Your task to perform on an android device: Search for bose soundsport free on newegg.com, select the first entry, add it to the cart, then select checkout. Image 0: 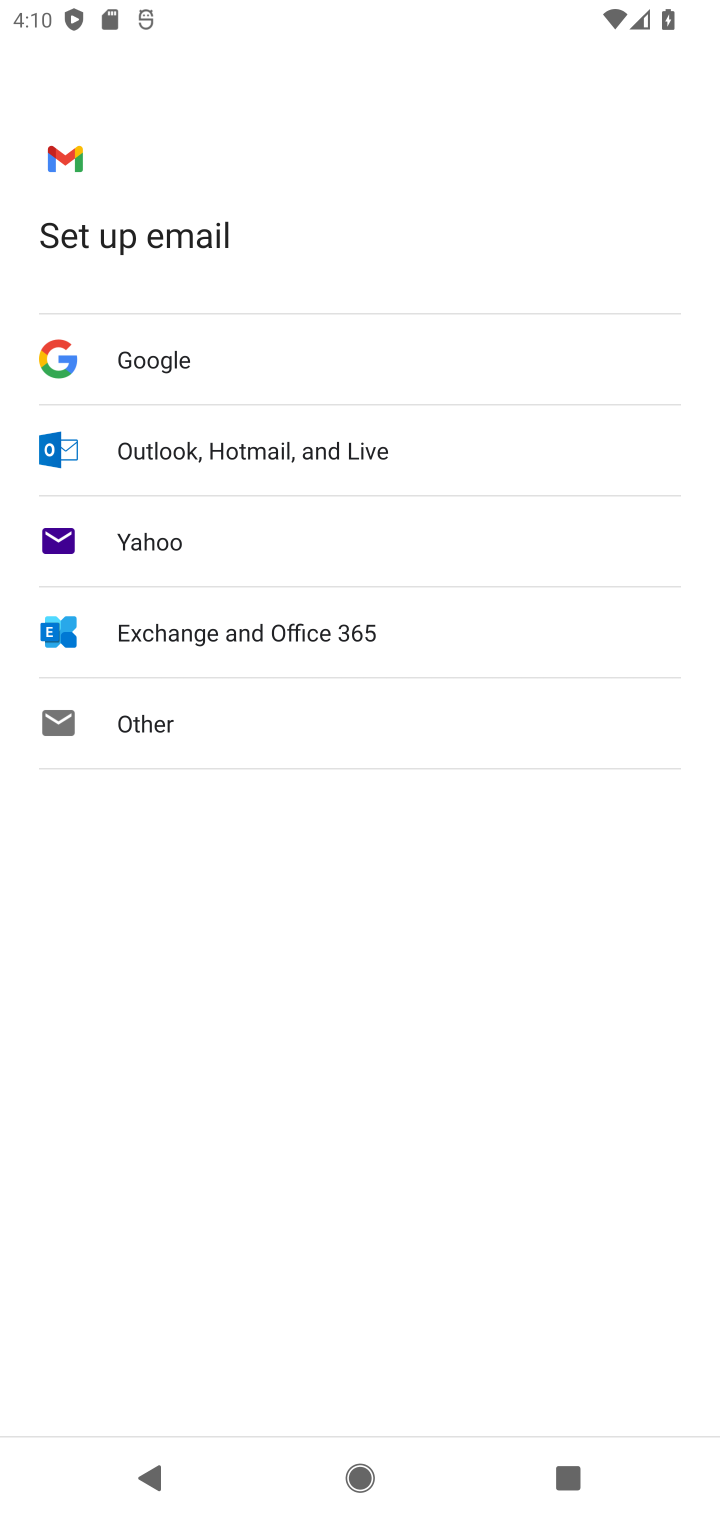
Step 0: press home button
Your task to perform on an android device: Search for bose soundsport free on newegg.com, select the first entry, add it to the cart, then select checkout. Image 1: 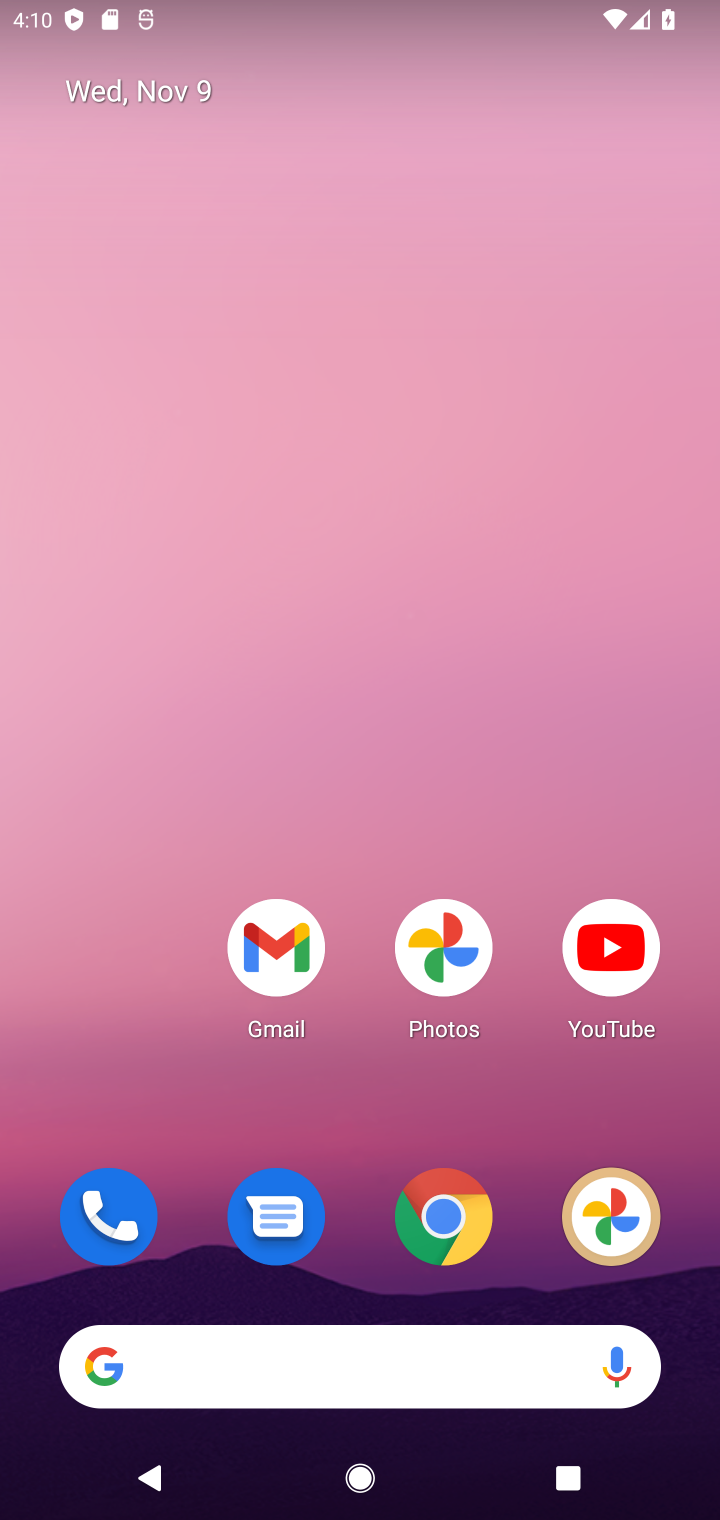
Step 1: drag from (363, 1105) to (511, 291)
Your task to perform on an android device: Search for bose soundsport free on newegg.com, select the first entry, add it to the cart, then select checkout. Image 2: 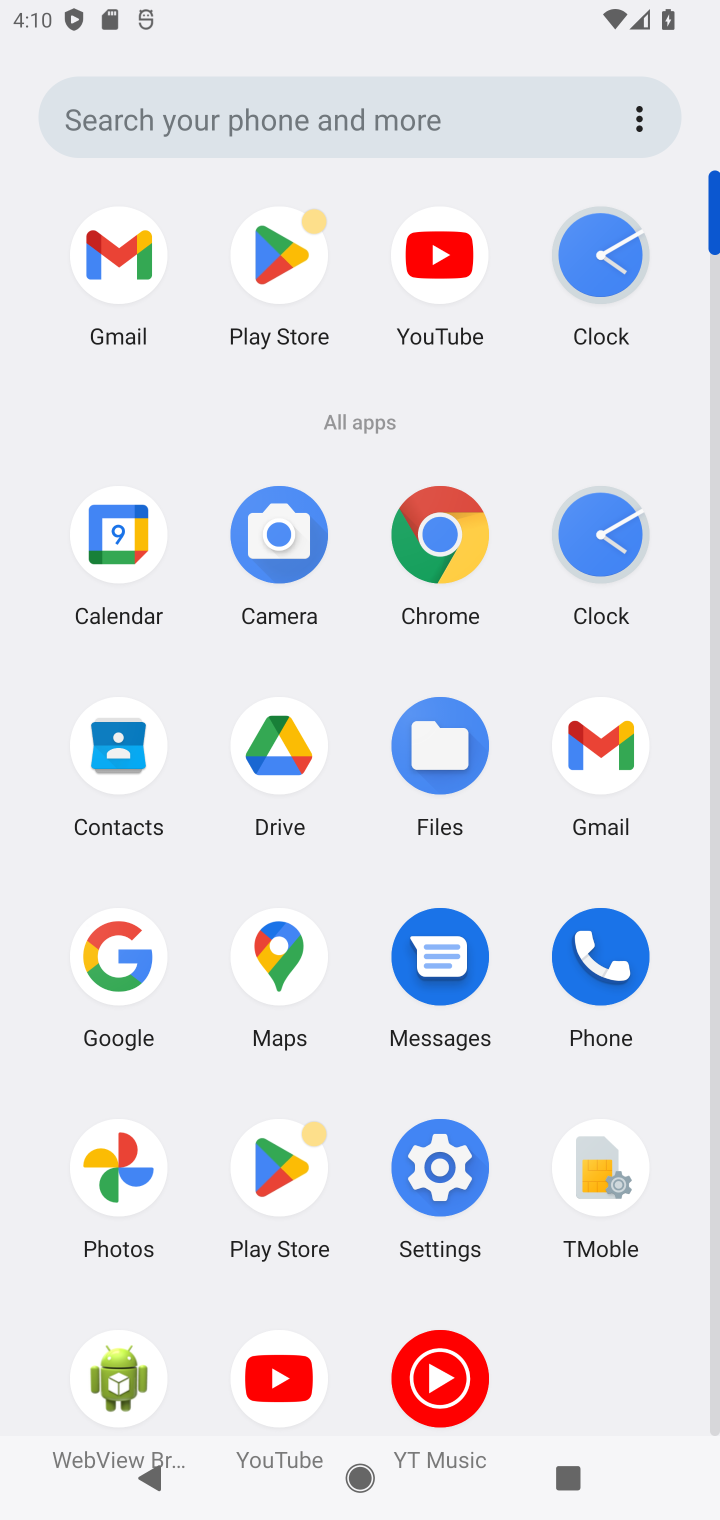
Step 2: click (442, 534)
Your task to perform on an android device: Search for bose soundsport free on newegg.com, select the first entry, add it to the cart, then select checkout. Image 3: 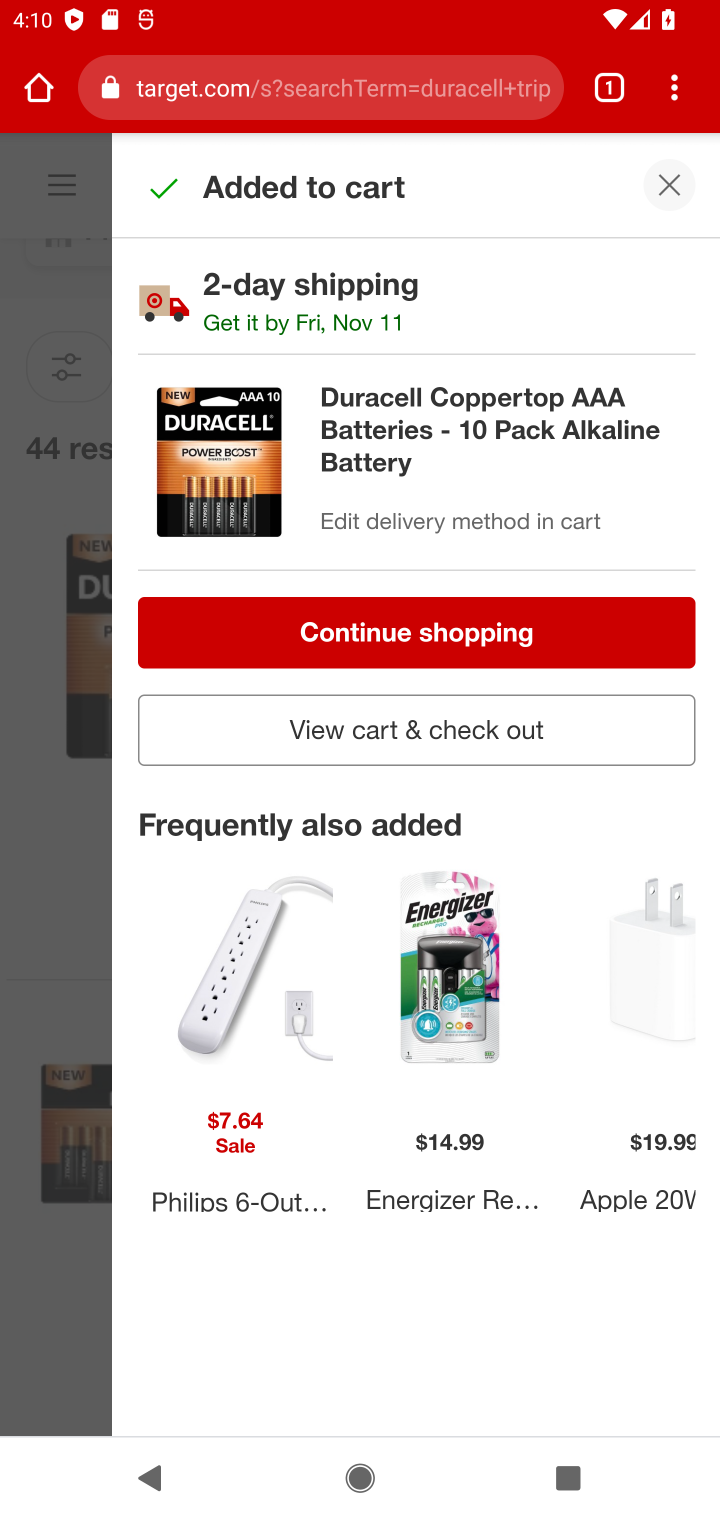
Step 3: click (506, 91)
Your task to perform on an android device: Search for bose soundsport free on newegg.com, select the first entry, add it to the cart, then select checkout. Image 4: 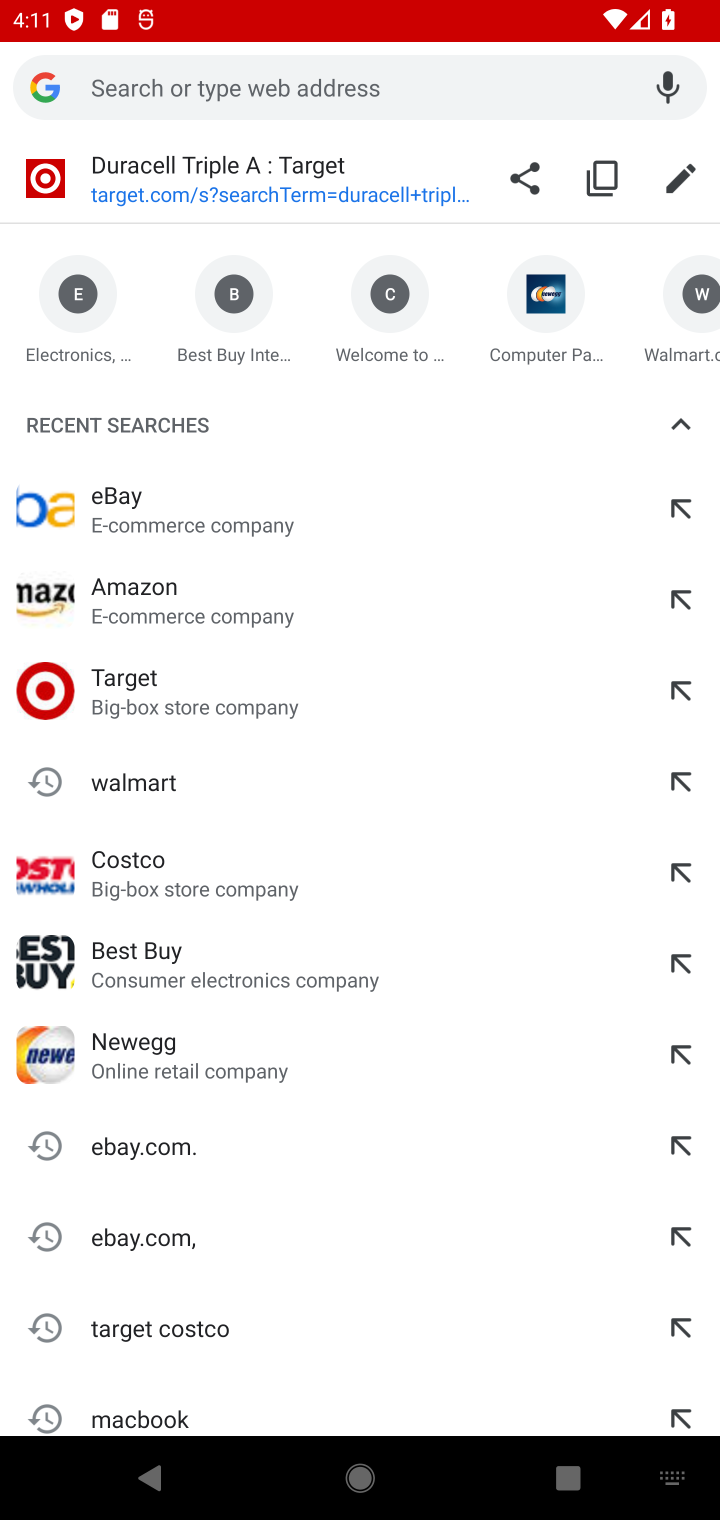
Step 4: type "newegg.com"
Your task to perform on an android device: Search for bose soundsport free on newegg.com, select the first entry, add it to the cart, then select checkout. Image 5: 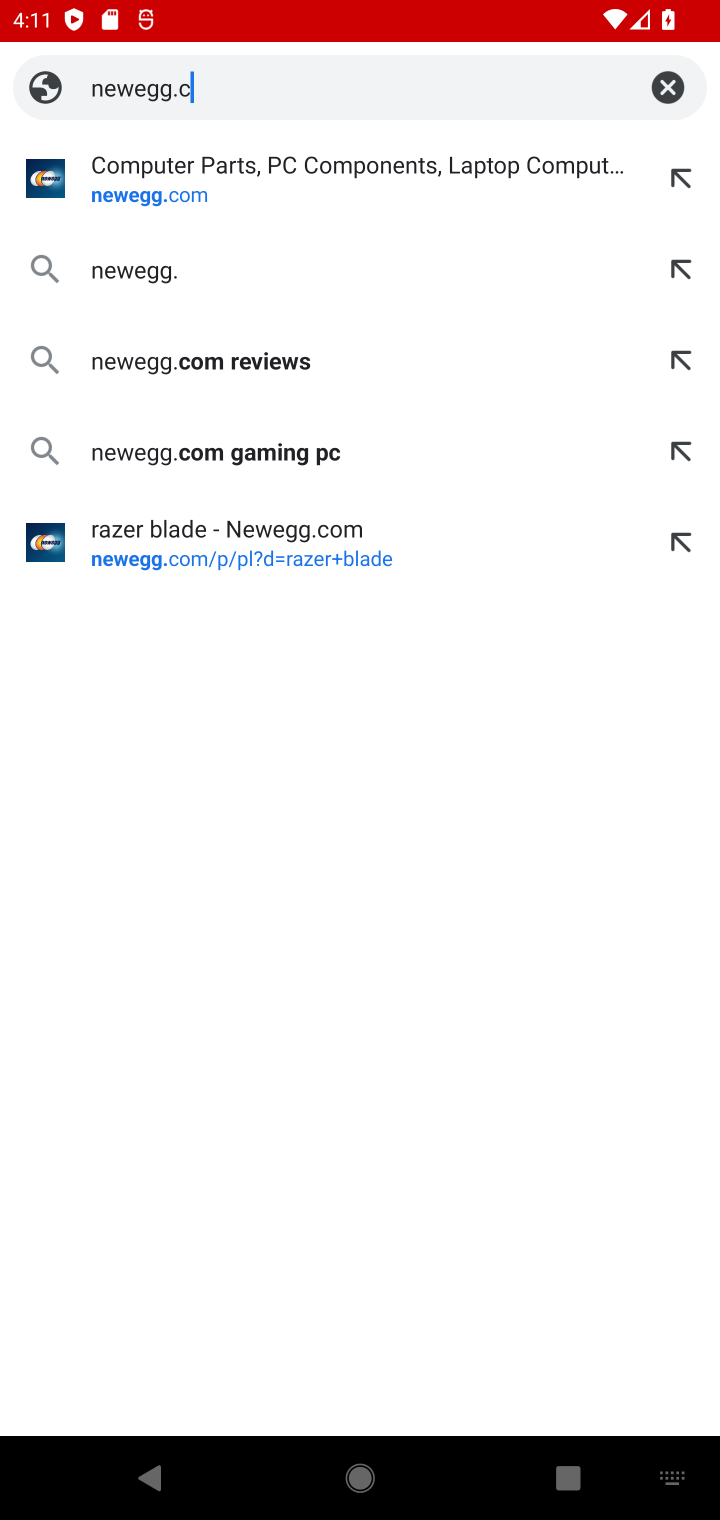
Step 5: press enter
Your task to perform on an android device: Search for bose soundsport free on newegg.com, select the first entry, add it to the cart, then select checkout. Image 6: 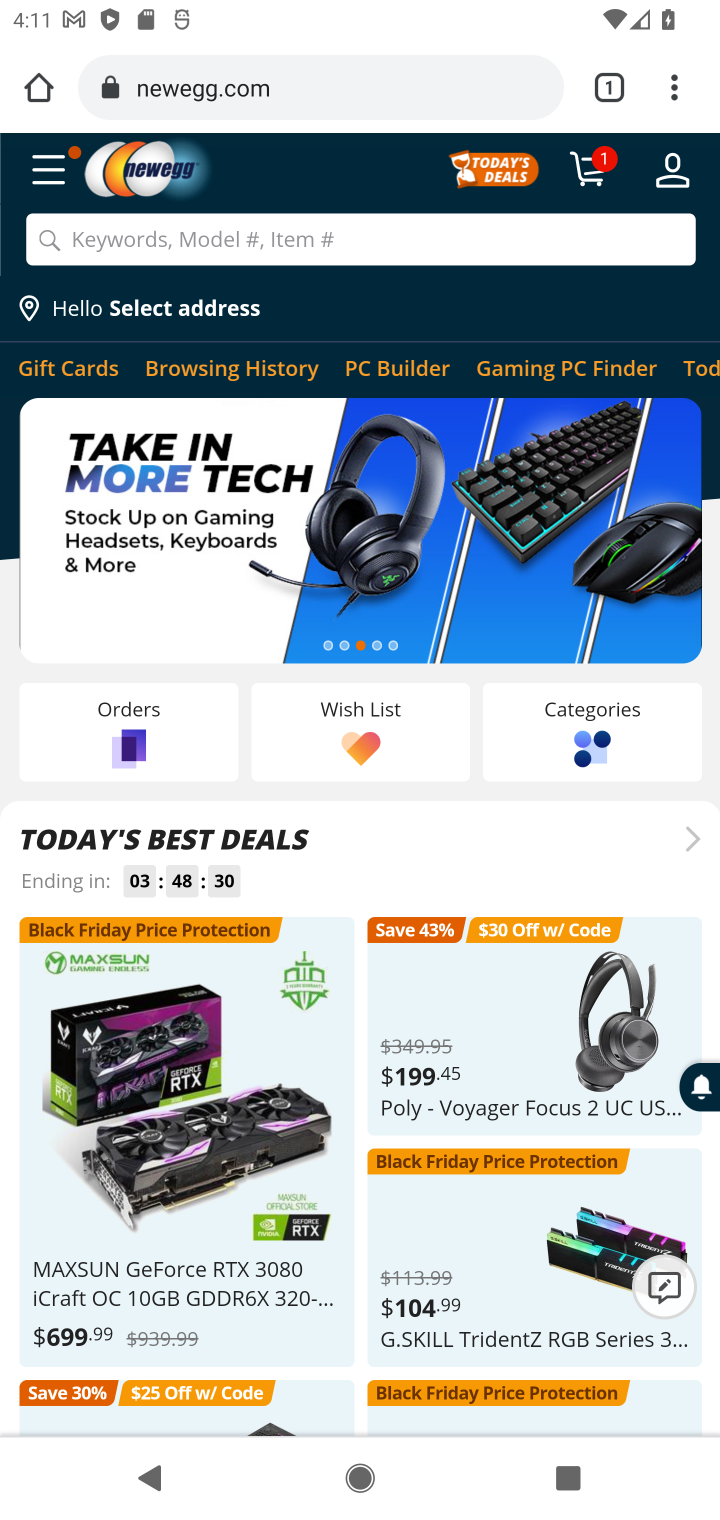
Step 6: click (490, 234)
Your task to perform on an android device: Search for bose soundsport free on newegg.com, select the first entry, add it to the cart, then select checkout. Image 7: 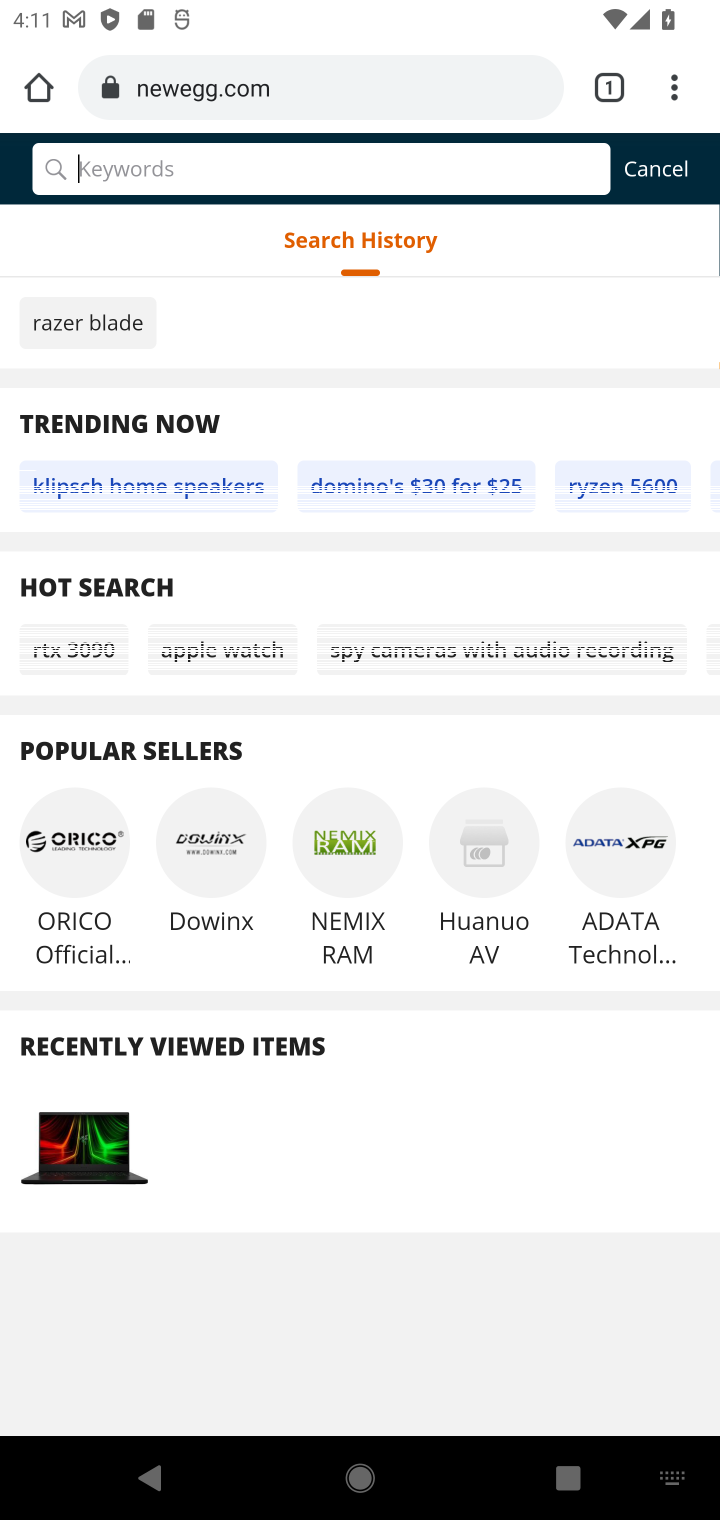
Step 7: type "bose soundsport free"
Your task to perform on an android device: Search for bose soundsport free on newegg.com, select the first entry, add it to the cart, then select checkout. Image 8: 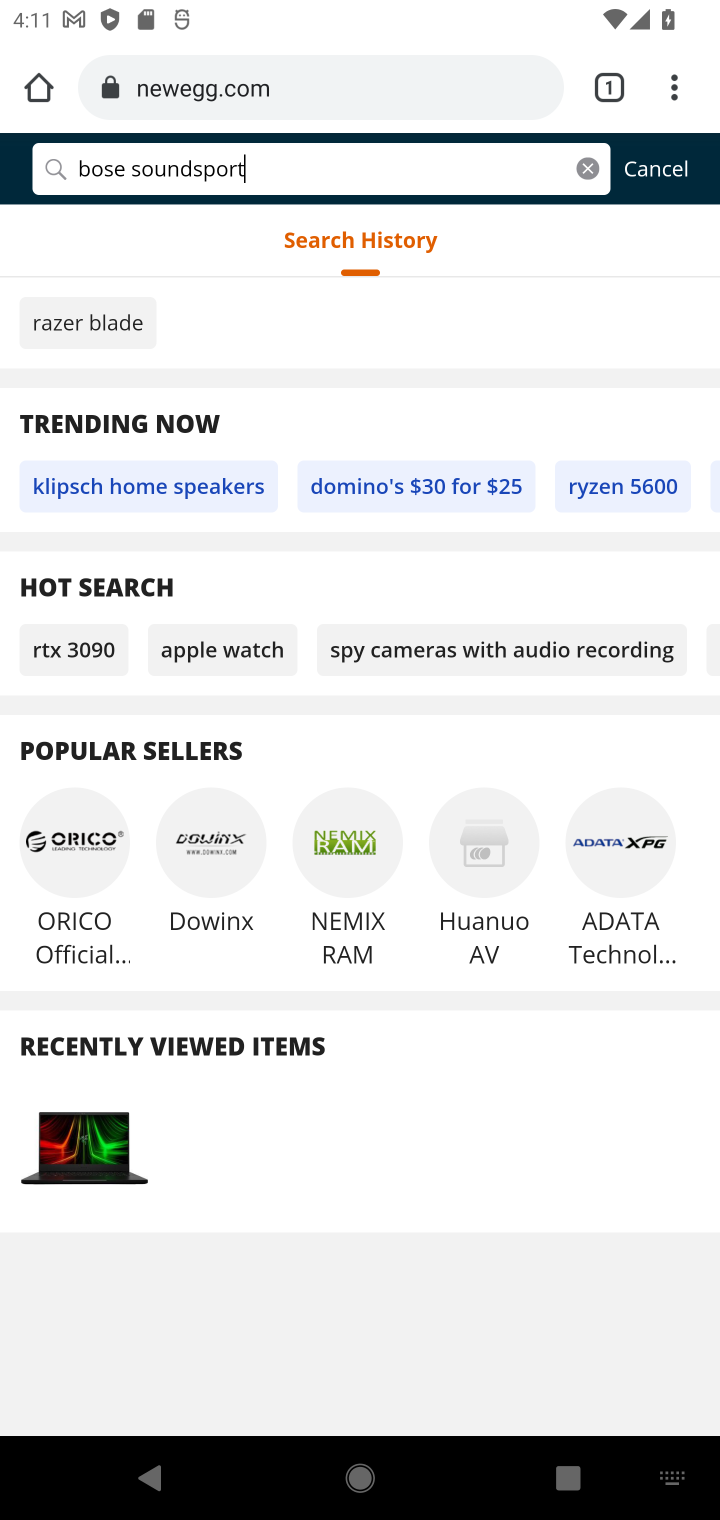
Step 8: press enter
Your task to perform on an android device: Search for bose soundsport free on newegg.com, select the first entry, add it to the cart, then select checkout. Image 9: 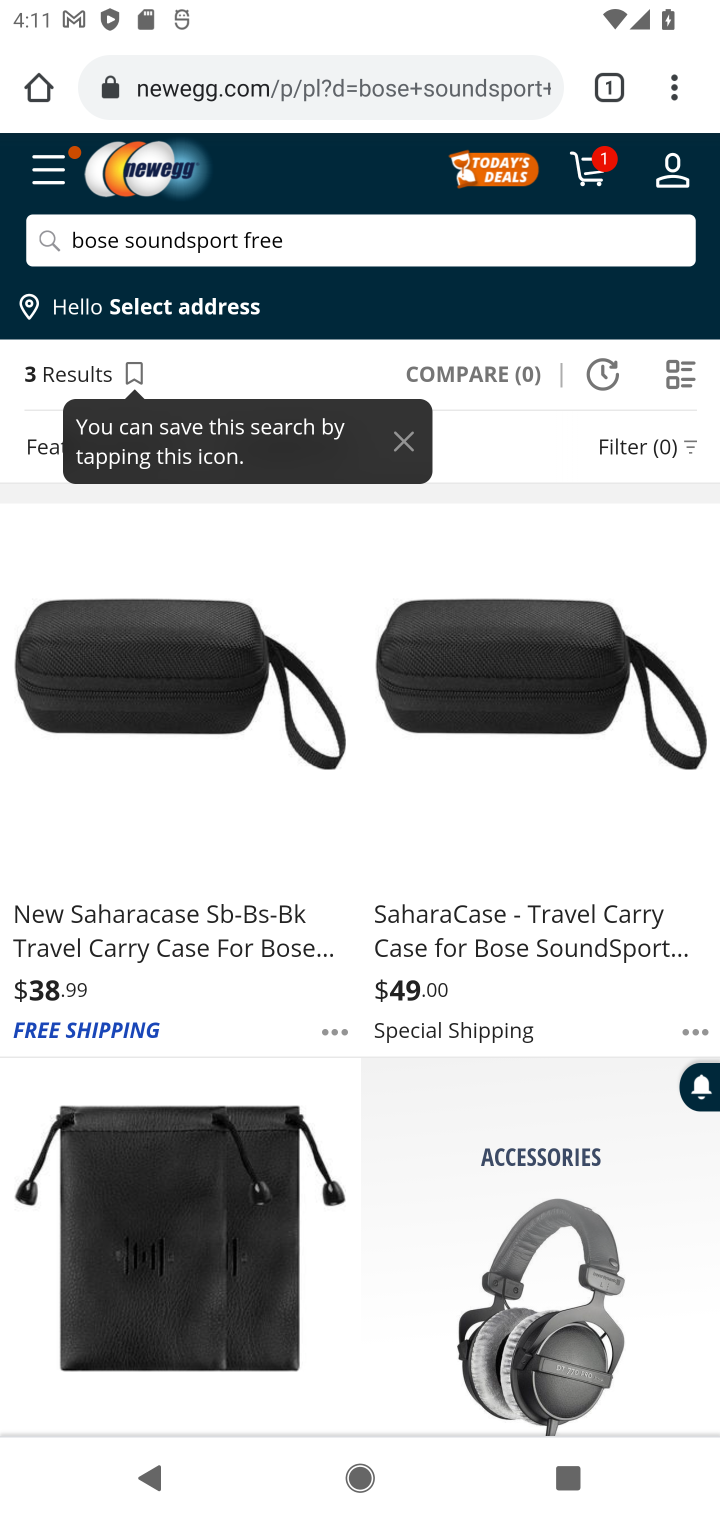
Step 9: drag from (319, 1174) to (360, 615)
Your task to perform on an android device: Search for bose soundsport free on newegg.com, select the first entry, add it to the cart, then select checkout. Image 10: 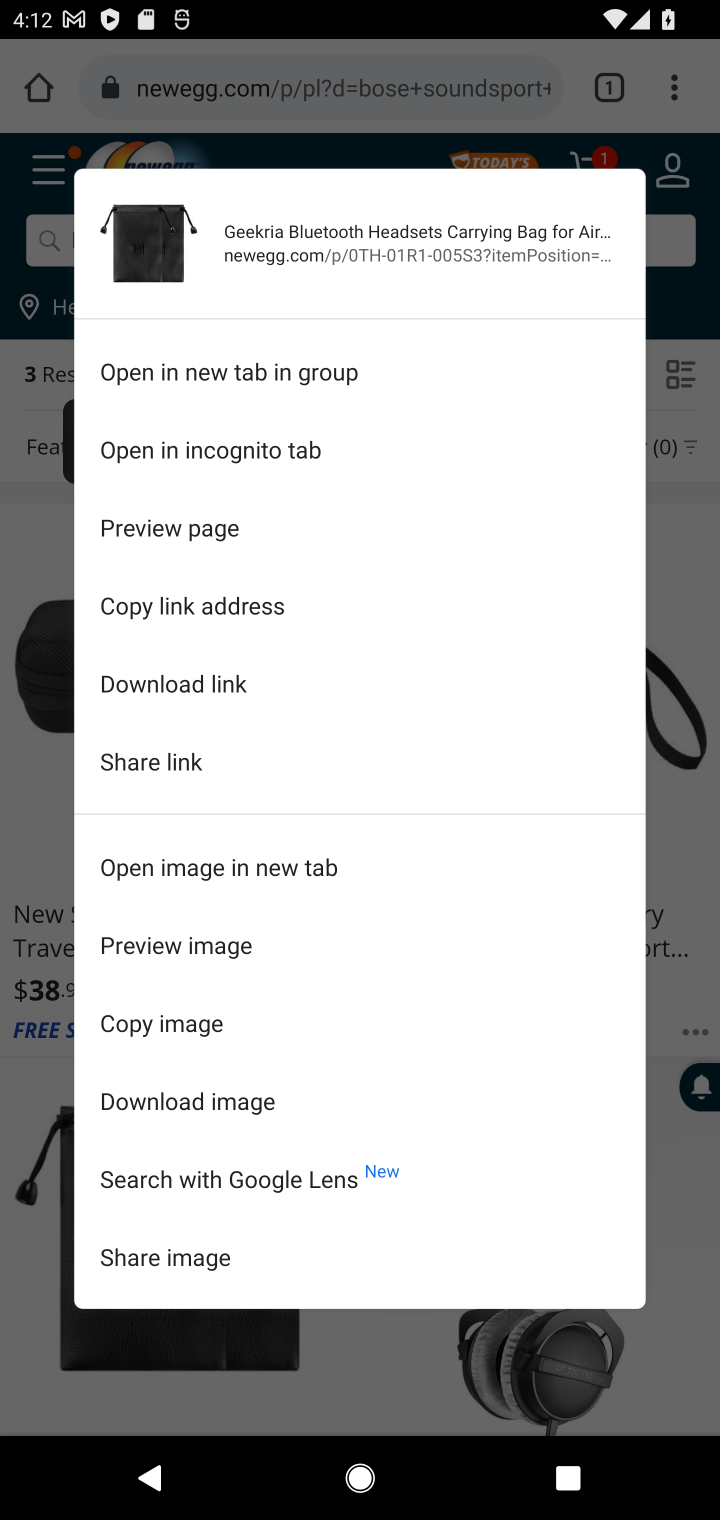
Step 10: click (677, 521)
Your task to perform on an android device: Search for bose soundsport free on newegg.com, select the first entry, add it to the cart, then select checkout. Image 11: 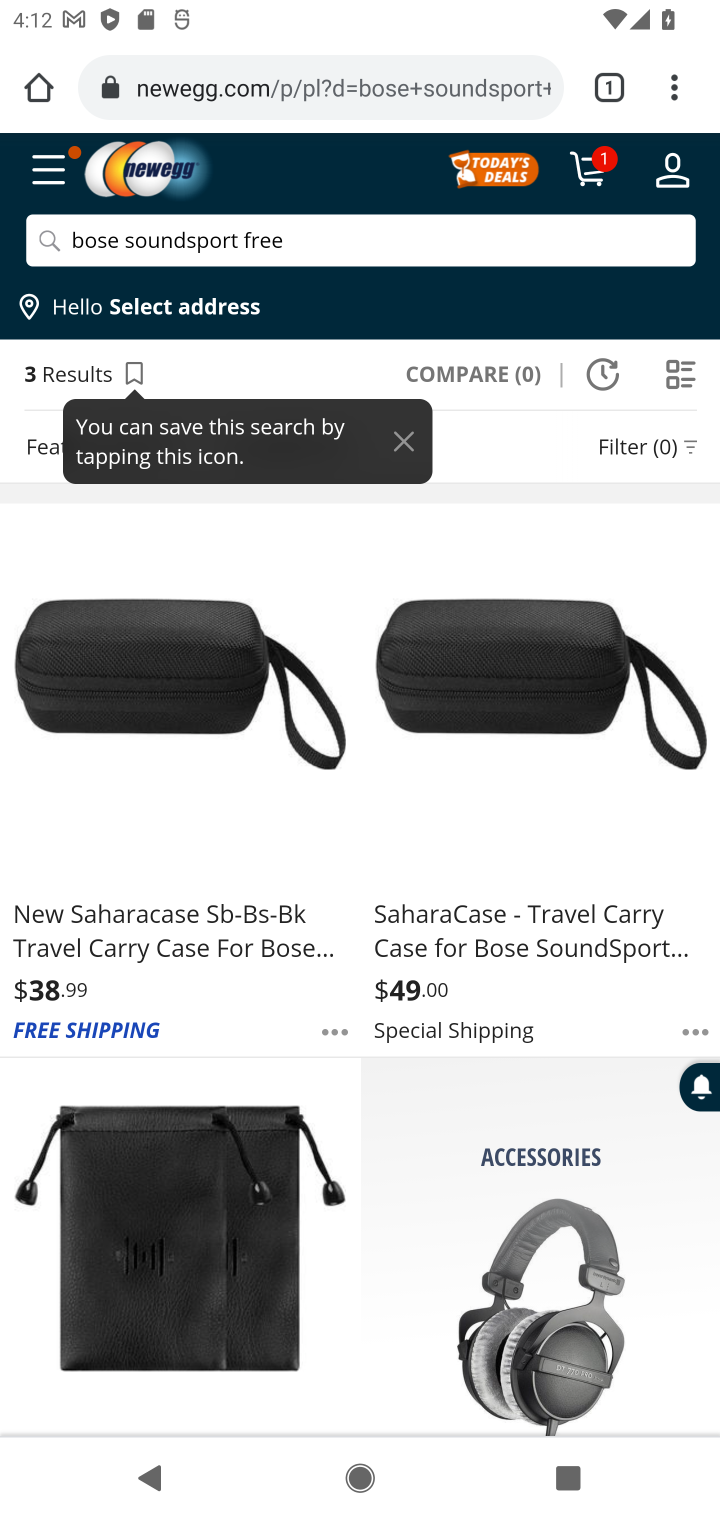
Step 11: task complete